Your task to perform on an android device: check the backup settings in the google photos Image 0: 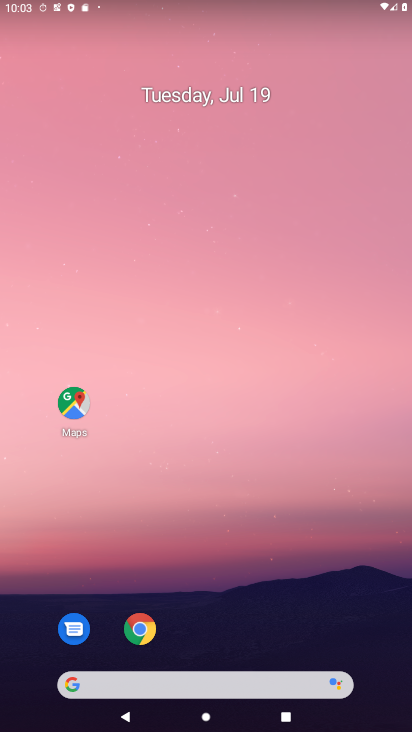
Step 0: drag from (223, 525) to (269, 177)
Your task to perform on an android device: check the backup settings in the google photos Image 1: 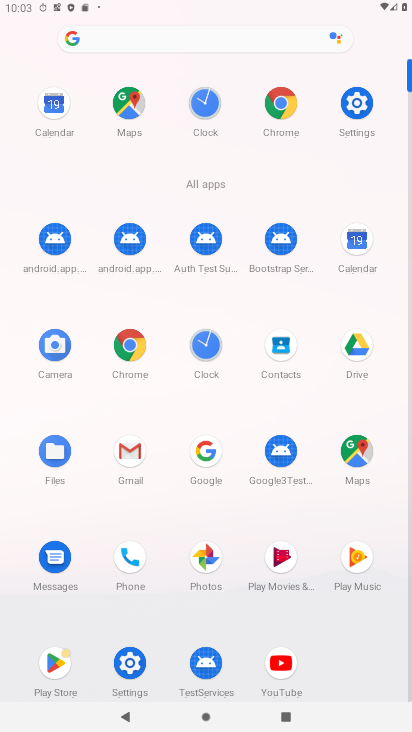
Step 1: click (208, 566)
Your task to perform on an android device: check the backup settings in the google photos Image 2: 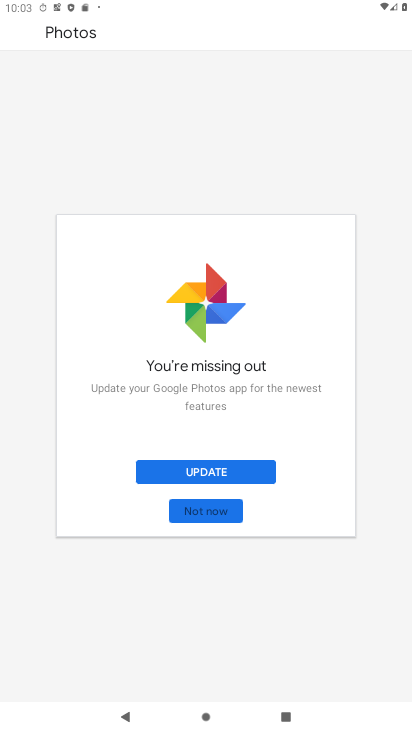
Step 2: click (217, 510)
Your task to perform on an android device: check the backup settings in the google photos Image 3: 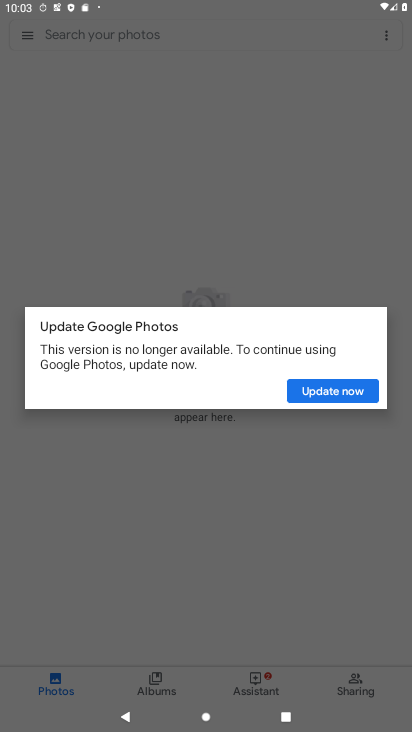
Step 3: click (323, 394)
Your task to perform on an android device: check the backup settings in the google photos Image 4: 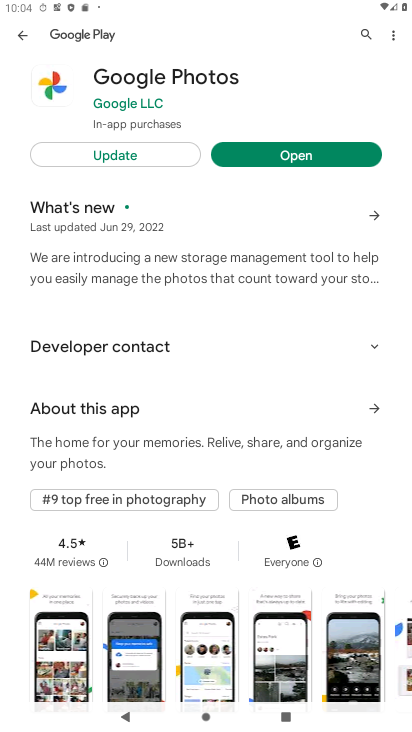
Step 4: click (302, 150)
Your task to perform on an android device: check the backup settings in the google photos Image 5: 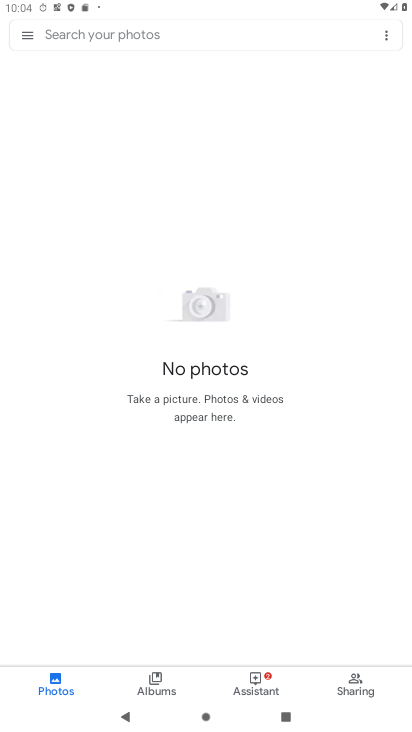
Step 5: click (28, 41)
Your task to perform on an android device: check the backup settings in the google photos Image 6: 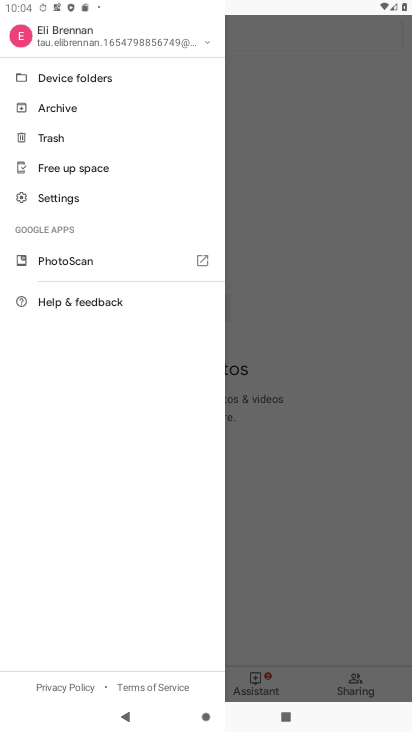
Step 6: click (68, 205)
Your task to perform on an android device: check the backup settings in the google photos Image 7: 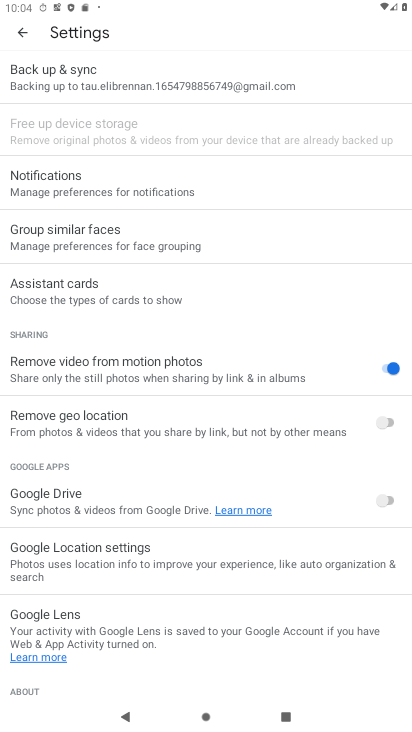
Step 7: click (133, 77)
Your task to perform on an android device: check the backup settings in the google photos Image 8: 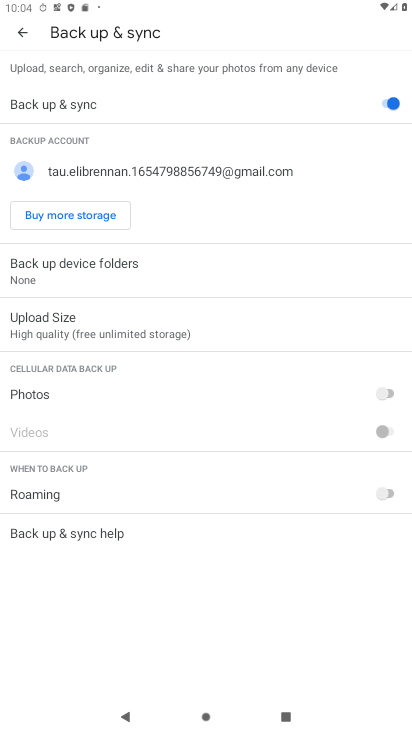
Step 8: task complete